Your task to perform on an android device: Go to settings Image 0: 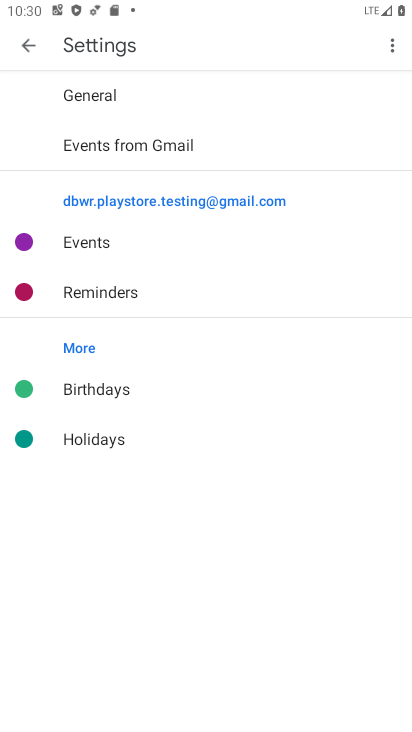
Step 0: press home button
Your task to perform on an android device: Go to settings Image 1: 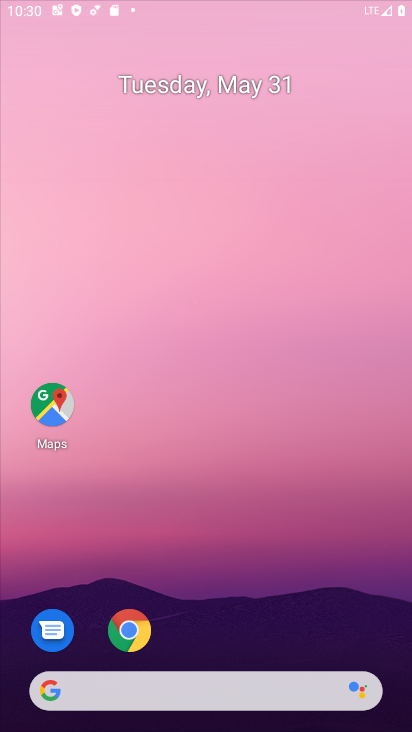
Step 1: drag from (302, 634) to (331, 179)
Your task to perform on an android device: Go to settings Image 2: 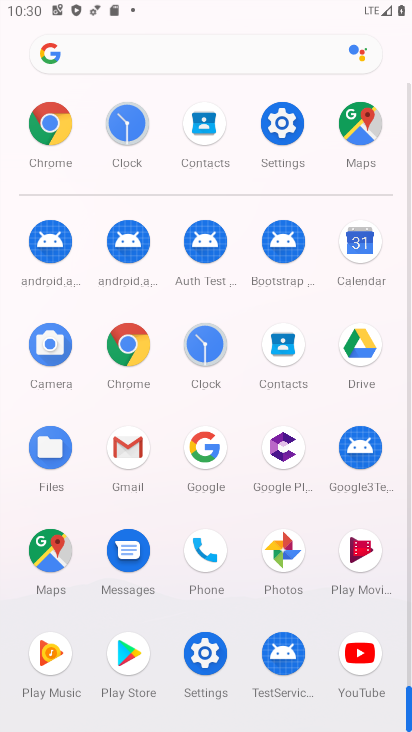
Step 2: drag from (243, 475) to (254, 319)
Your task to perform on an android device: Go to settings Image 3: 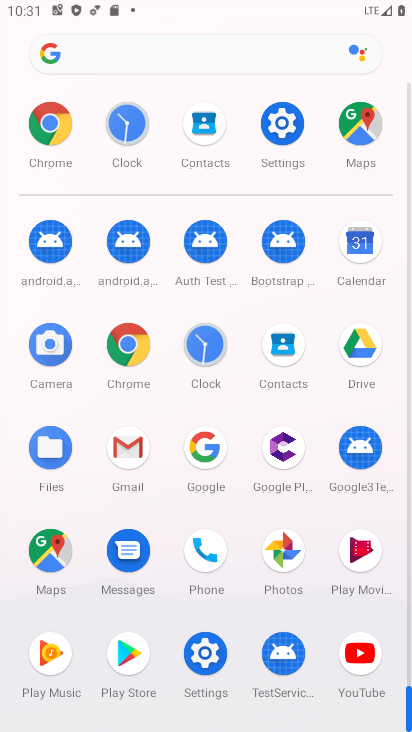
Step 3: click (285, 133)
Your task to perform on an android device: Go to settings Image 4: 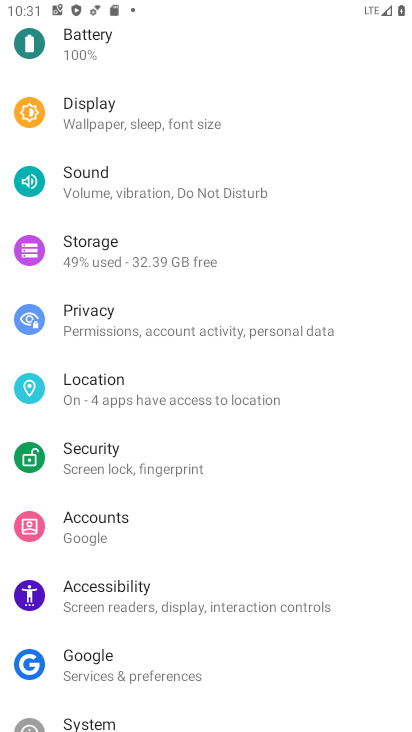
Step 4: task complete